Your task to perform on an android device: Open Youtube and go to the subscriptions tab Image 0: 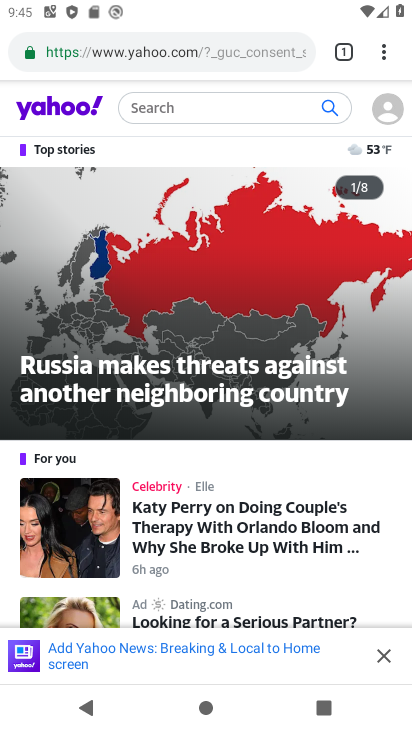
Step 0: press home button
Your task to perform on an android device: Open Youtube and go to the subscriptions tab Image 1: 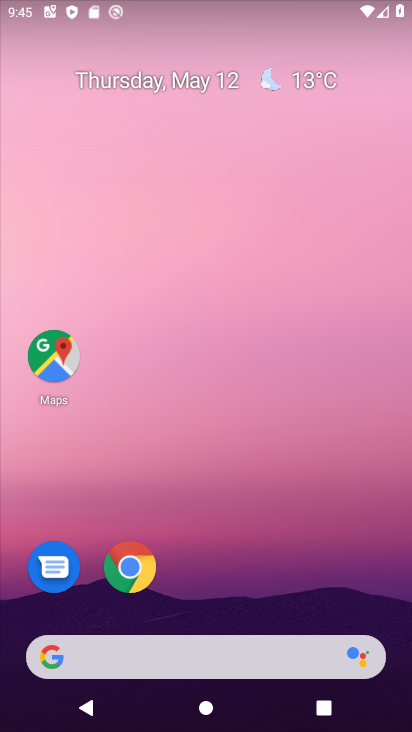
Step 1: drag from (304, 582) to (331, 85)
Your task to perform on an android device: Open Youtube and go to the subscriptions tab Image 2: 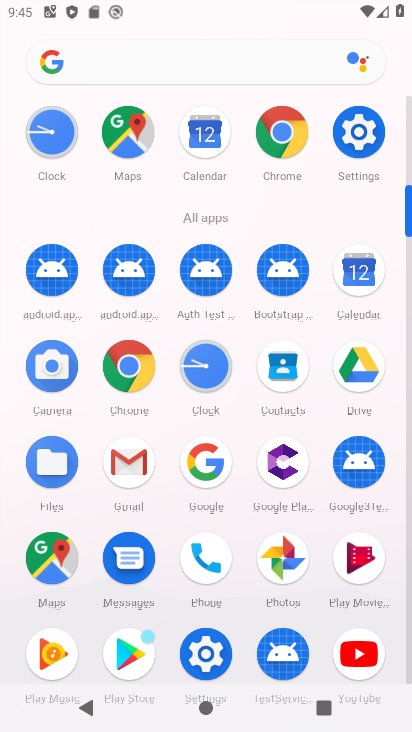
Step 2: drag from (245, 685) to (323, 199)
Your task to perform on an android device: Open Youtube and go to the subscriptions tab Image 3: 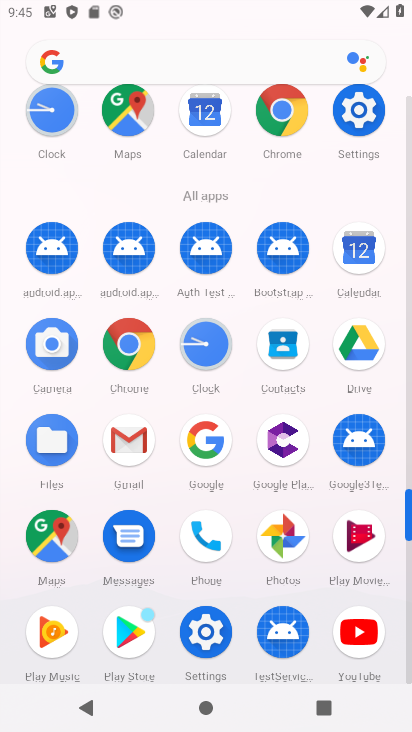
Step 3: click (361, 649)
Your task to perform on an android device: Open Youtube and go to the subscriptions tab Image 4: 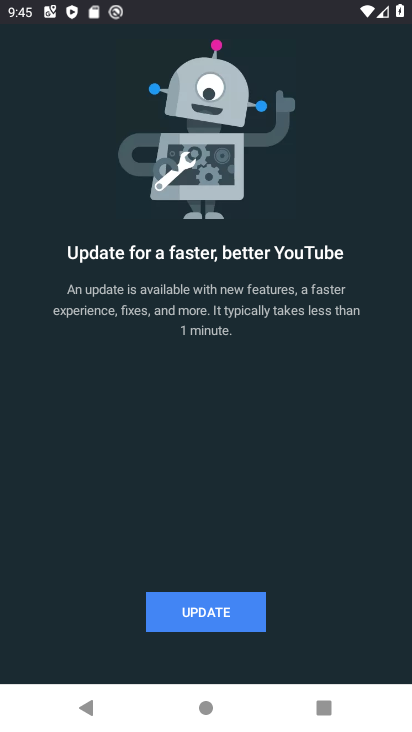
Step 4: click (165, 608)
Your task to perform on an android device: Open Youtube and go to the subscriptions tab Image 5: 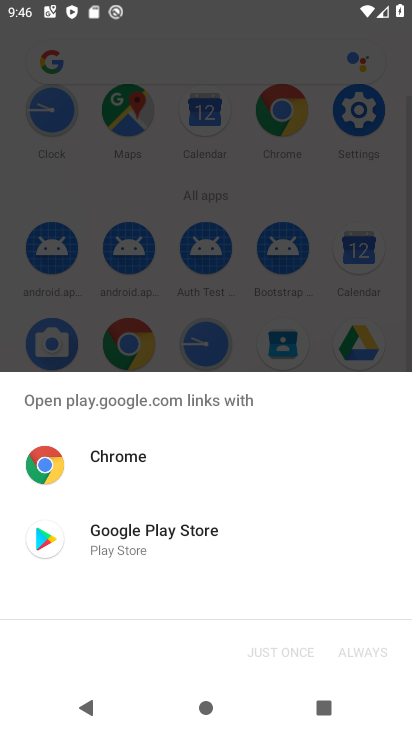
Step 5: click (197, 534)
Your task to perform on an android device: Open Youtube and go to the subscriptions tab Image 6: 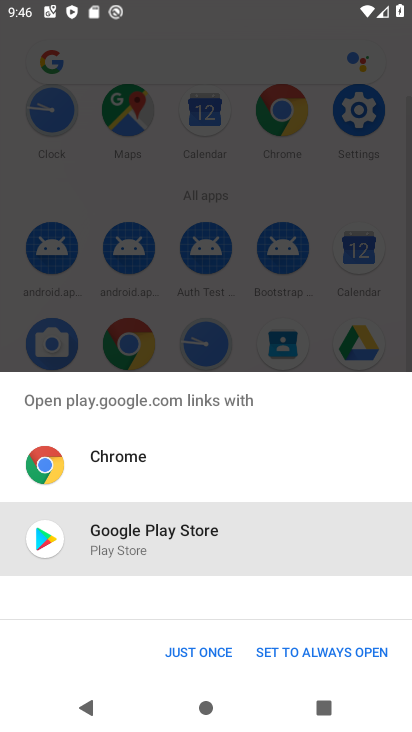
Step 6: click (220, 662)
Your task to perform on an android device: Open Youtube and go to the subscriptions tab Image 7: 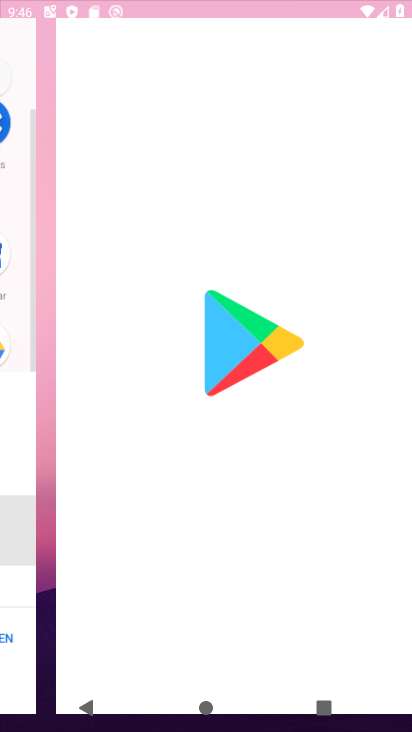
Step 7: click (220, 662)
Your task to perform on an android device: Open Youtube and go to the subscriptions tab Image 8: 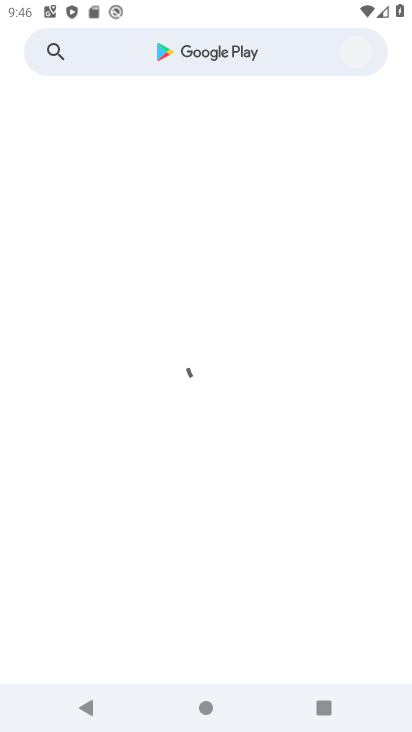
Step 8: click (220, 662)
Your task to perform on an android device: Open Youtube and go to the subscriptions tab Image 9: 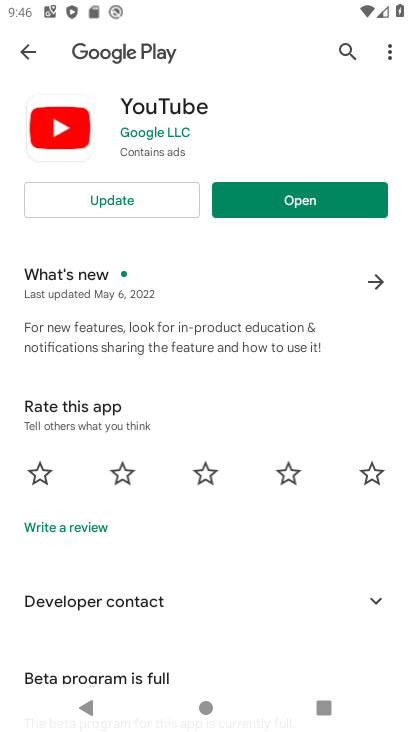
Step 9: click (220, 662)
Your task to perform on an android device: Open Youtube and go to the subscriptions tab Image 10: 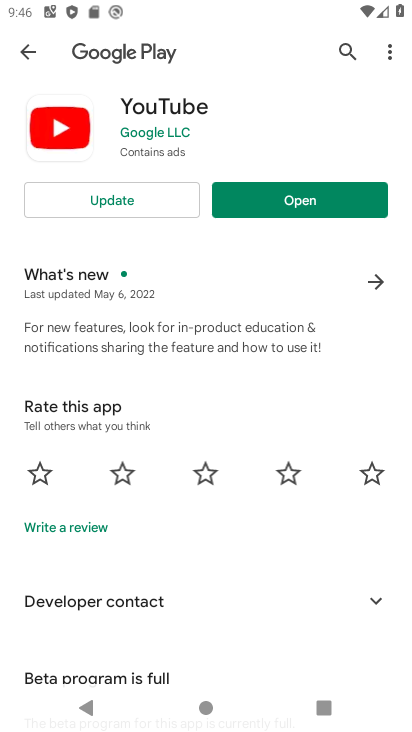
Step 10: click (163, 196)
Your task to perform on an android device: Open Youtube and go to the subscriptions tab Image 11: 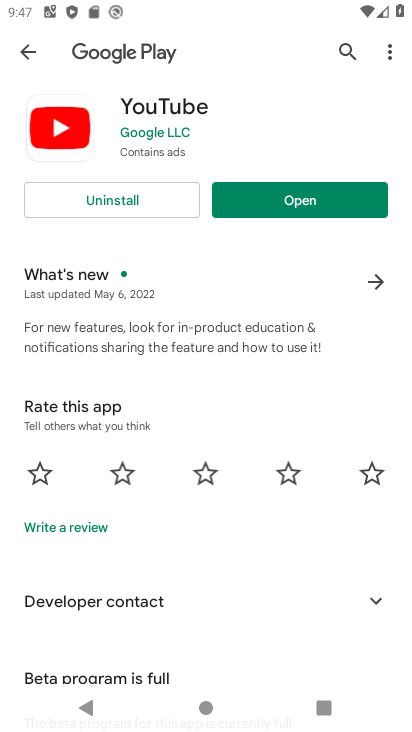
Step 11: click (244, 208)
Your task to perform on an android device: Open Youtube and go to the subscriptions tab Image 12: 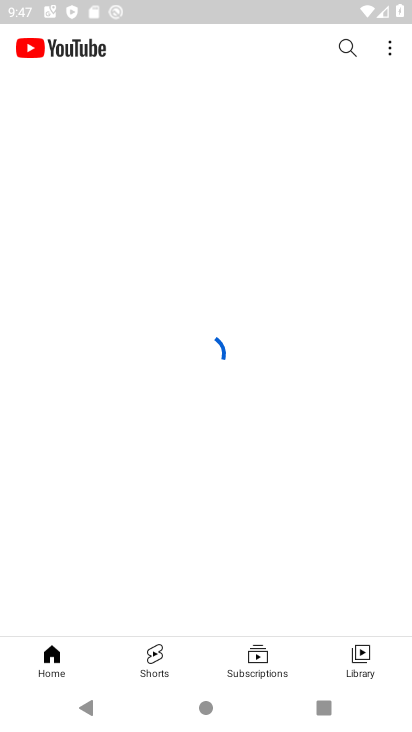
Step 12: click (272, 659)
Your task to perform on an android device: Open Youtube and go to the subscriptions tab Image 13: 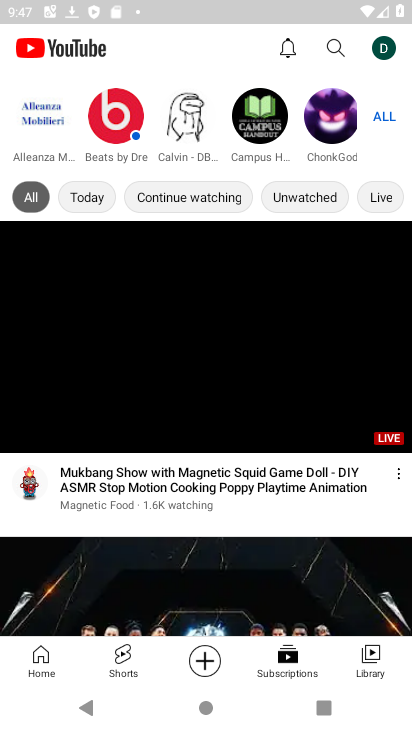
Step 13: task complete